Your task to perform on an android device: toggle priority inbox in the gmail app Image 0: 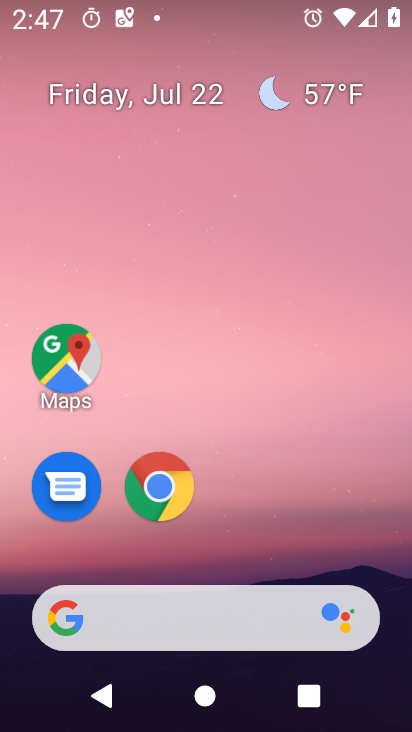
Step 0: press home button
Your task to perform on an android device: toggle priority inbox in the gmail app Image 1: 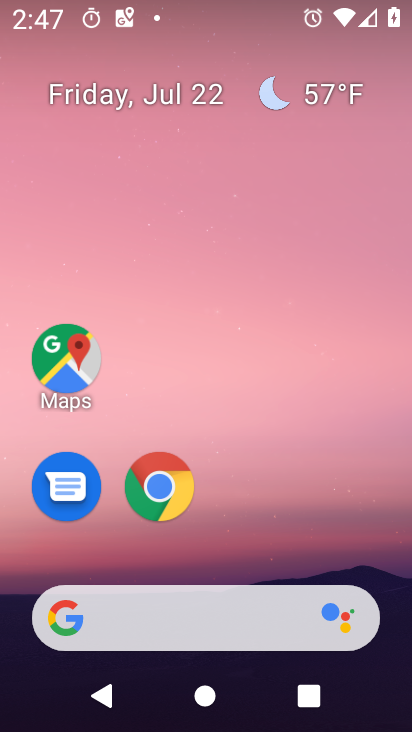
Step 1: drag from (362, 525) to (352, 143)
Your task to perform on an android device: toggle priority inbox in the gmail app Image 2: 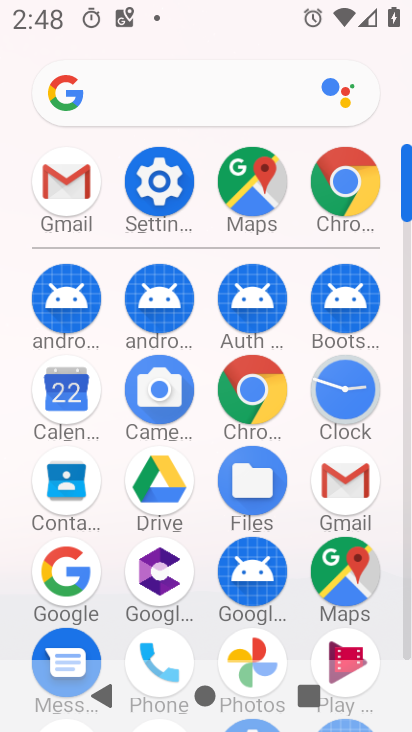
Step 2: click (339, 493)
Your task to perform on an android device: toggle priority inbox in the gmail app Image 3: 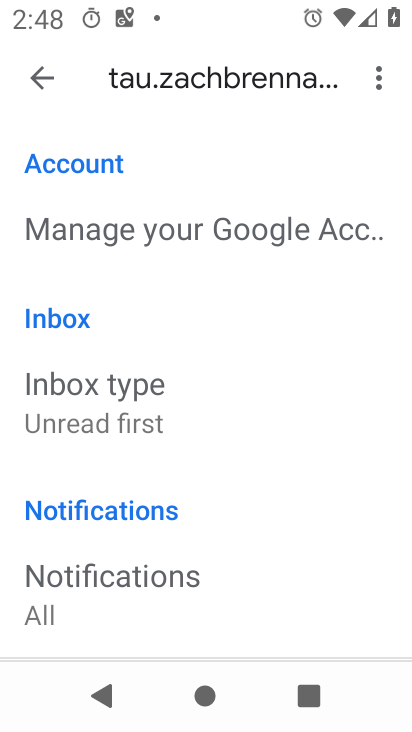
Step 3: drag from (344, 525) to (349, 445)
Your task to perform on an android device: toggle priority inbox in the gmail app Image 4: 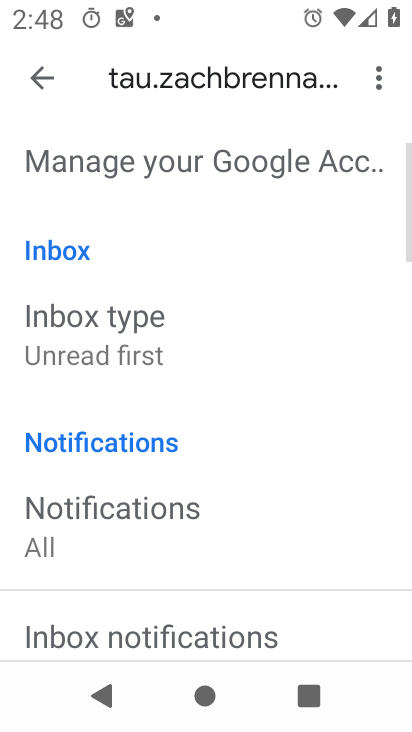
Step 4: drag from (349, 527) to (349, 442)
Your task to perform on an android device: toggle priority inbox in the gmail app Image 5: 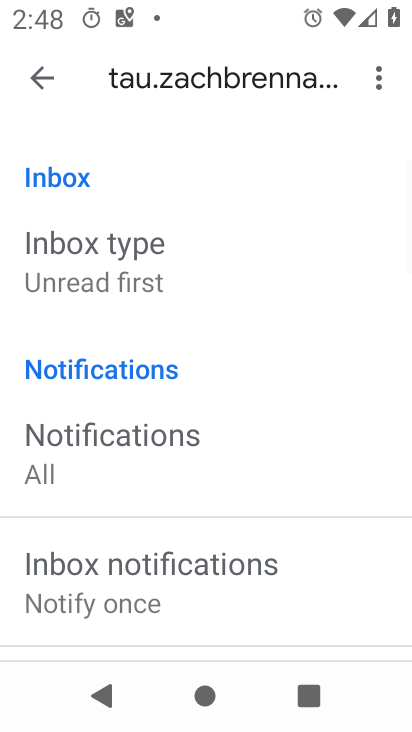
Step 5: drag from (342, 556) to (358, 441)
Your task to perform on an android device: toggle priority inbox in the gmail app Image 6: 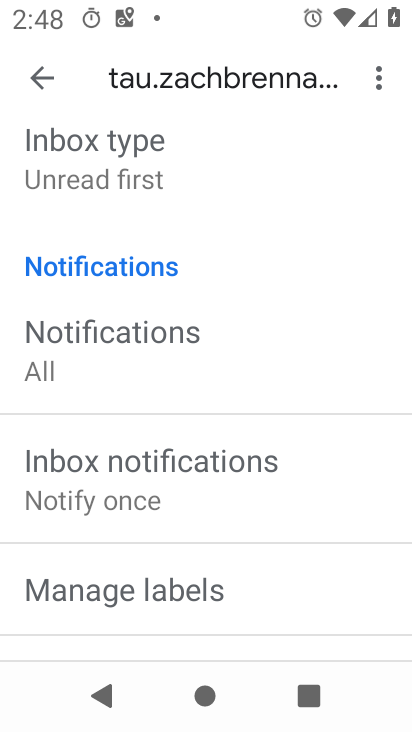
Step 6: drag from (339, 560) to (347, 454)
Your task to perform on an android device: toggle priority inbox in the gmail app Image 7: 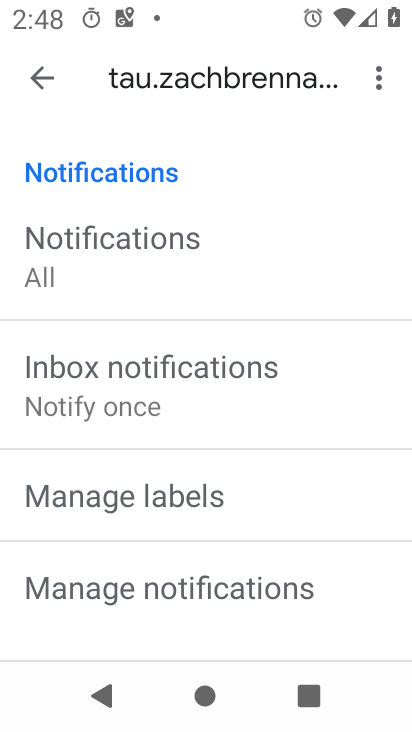
Step 7: drag from (350, 532) to (349, 407)
Your task to perform on an android device: toggle priority inbox in the gmail app Image 8: 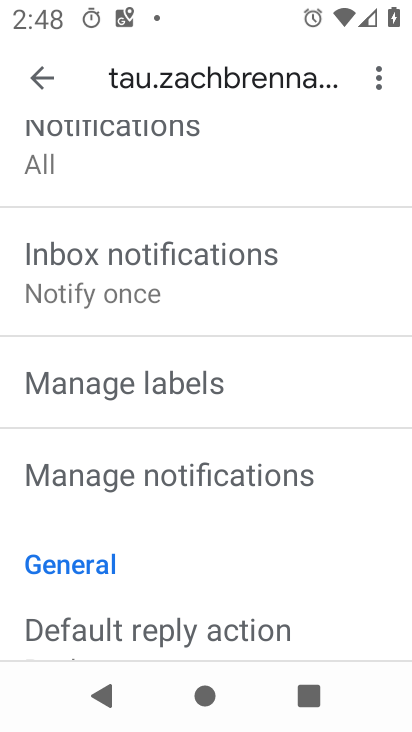
Step 8: drag from (351, 534) to (351, 445)
Your task to perform on an android device: toggle priority inbox in the gmail app Image 9: 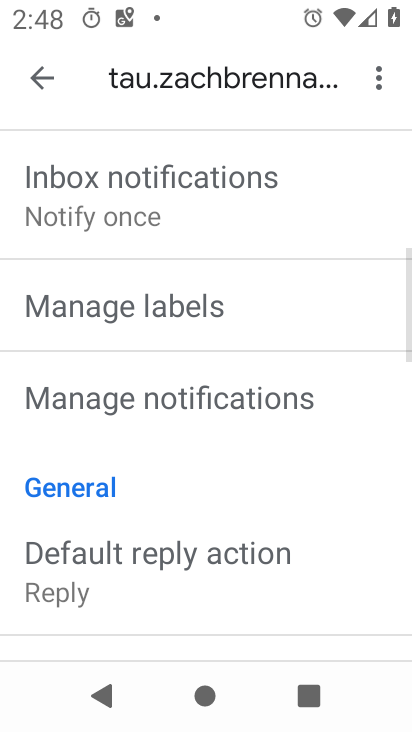
Step 9: drag from (354, 540) to (354, 444)
Your task to perform on an android device: toggle priority inbox in the gmail app Image 10: 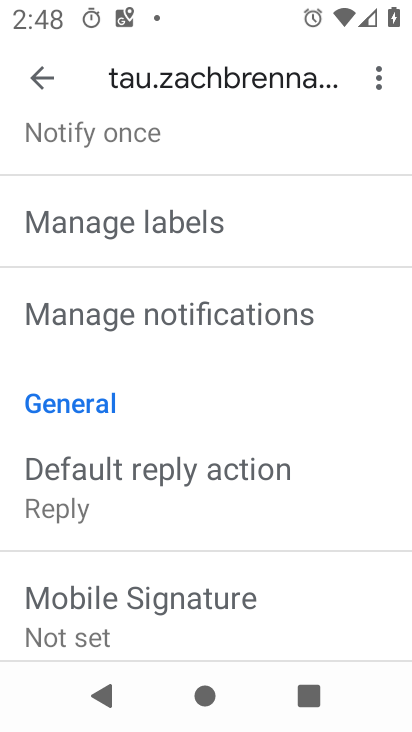
Step 10: drag from (354, 542) to (353, 434)
Your task to perform on an android device: toggle priority inbox in the gmail app Image 11: 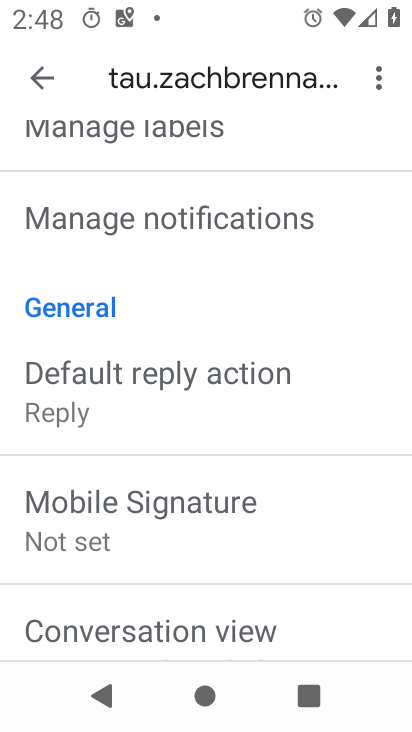
Step 11: drag from (347, 512) to (346, 438)
Your task to perform on an android device: toggle priority inbox in the gmail app Image 12: 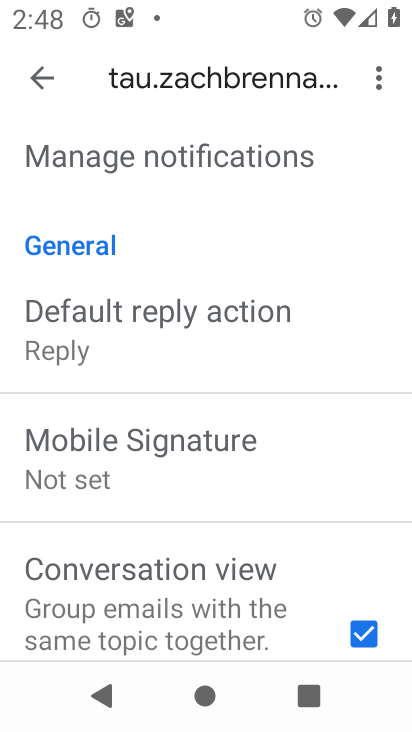
Step 12: drag from (325, 487) to (325, 401)
Your task to perform on an android device: toggle priority inbox in the gmail app Image 13: 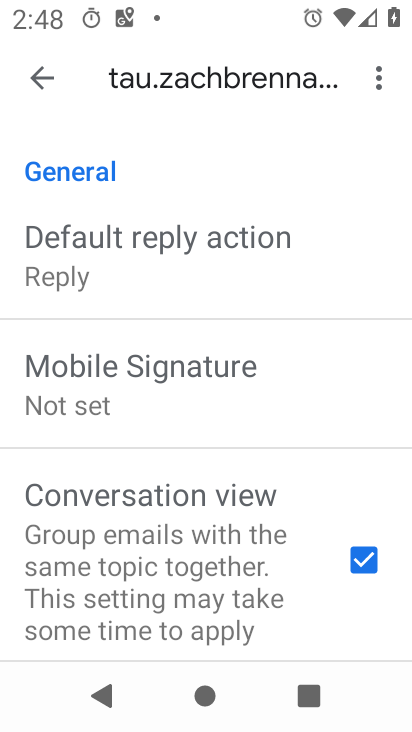
Step 13: drag from (298, 517) to (303, 421)
Your task to perform on an android device: toggle priority inbox in the gmail app Image 14: 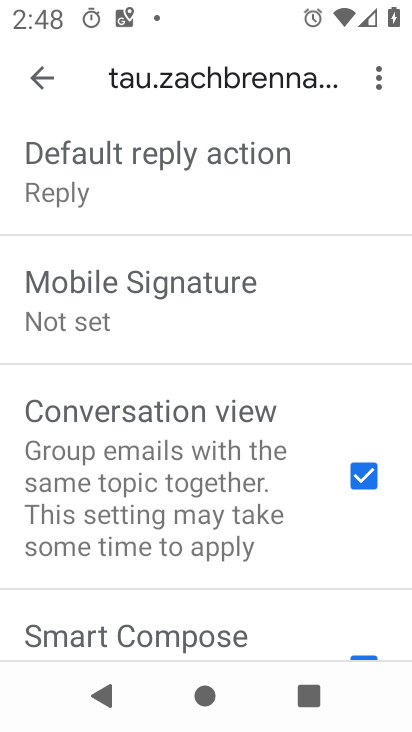
Step 14: drag from (325, 291) to (315, 391)
Your task to perform on an android device: toggle priority inbox in the gmail app Image 15: 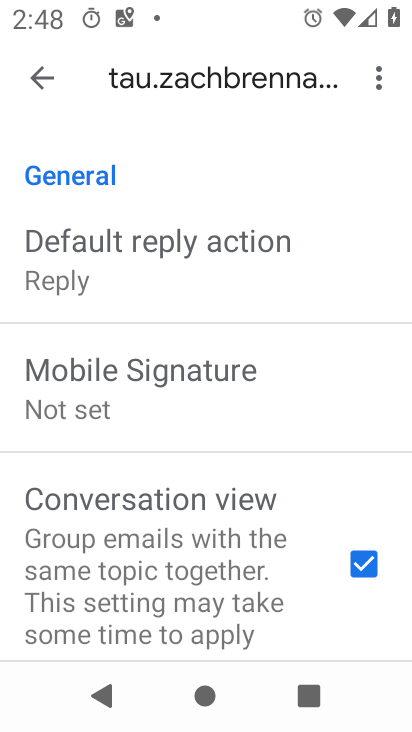
Step 15: drag from (310, 283) to (296, 384)
Your task to perform on an android device: toggle priority inbox in the gmail app Image 16: 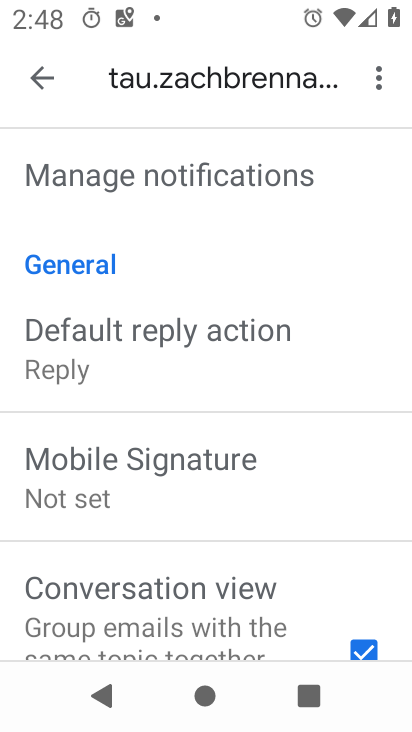
Step 16: drag from (304, 287) to (305, 364)
Your task to perform on an android device: toggle priority inbox in the gmail app Image 17: 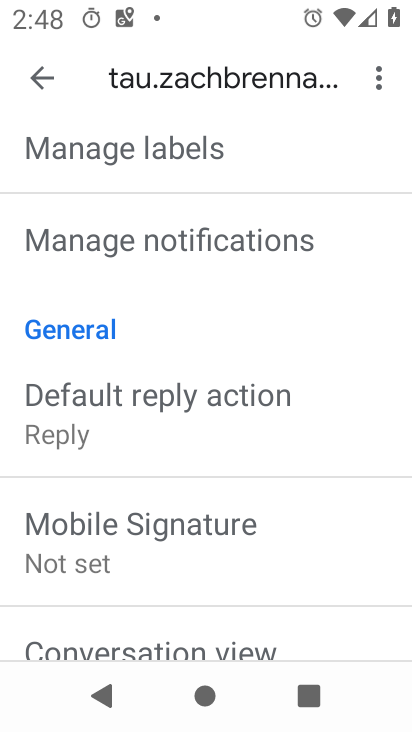
Step 17: drag from (301, 290) to (301, 372)
Your task to perform on an android device: toggle priority inbox in the gmail app Image 18: 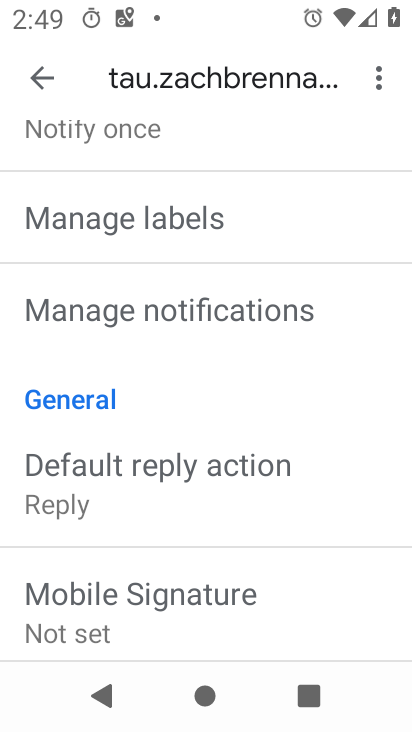
Step 18: drag from (293, 251) to (295, 354)
Your task to perform on an android device: toggle priority inbox in the gmail app Image 19: 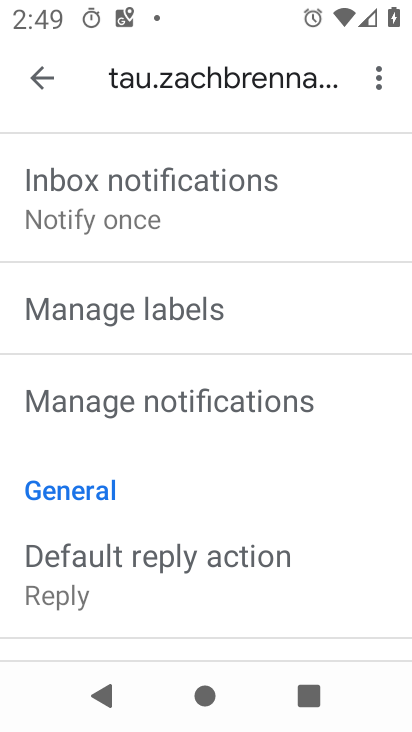
Step 19: drag from (295, 284) to (293, 383)
Your task to perform on an android device: toggle priority inbox in the gmail app Image 20: 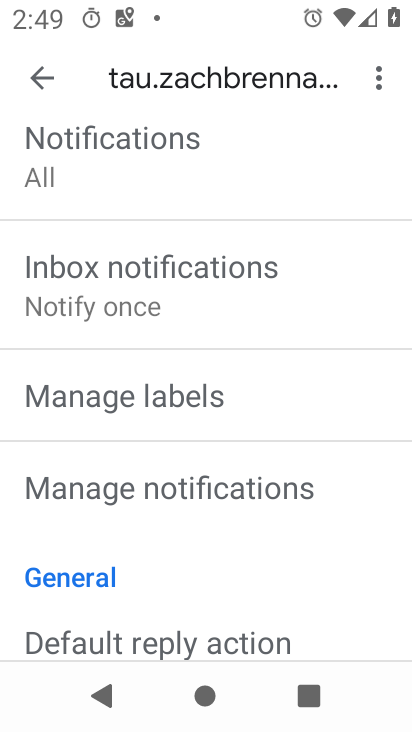
Step 20: drag from (293, 244) to (290, 355)
Your task to perform on an android device: toggle priority inbox in the gmail app Image 21: 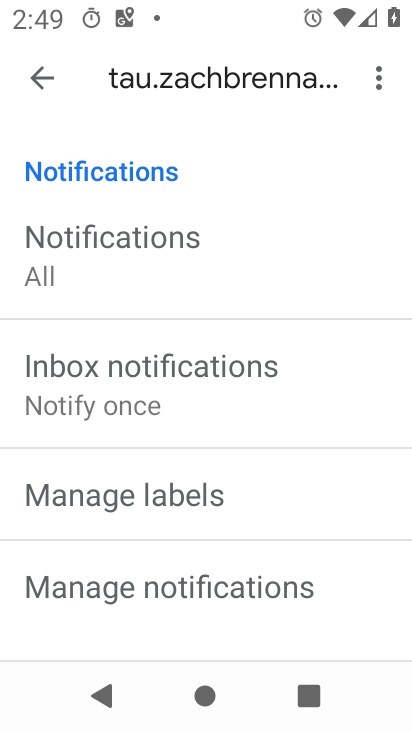
Step 21: drag from (267, 248) to (268, 364)
Your task to perform on an android device: toggle priority inbox in the gmail app Image 22: 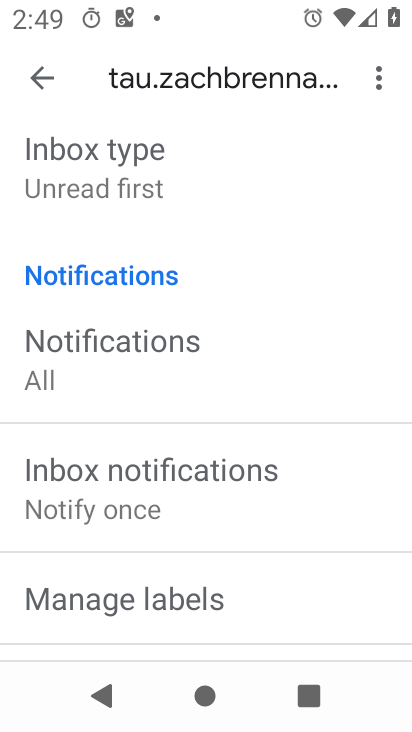
Step 22: drag from (249, 230) to (249, 351)
Your task to perform on an android device: toggle priority inbox in the gmail app Image 23: 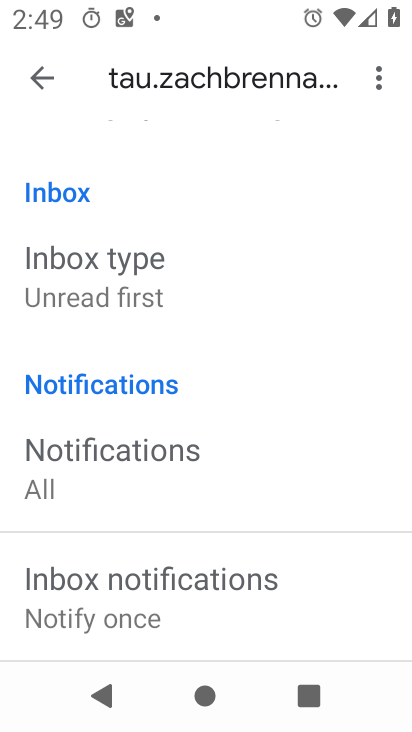
Step 23: click (152, 295)
Your task to perform on an android device: toggle priority inbox in the gmail app Image 24: 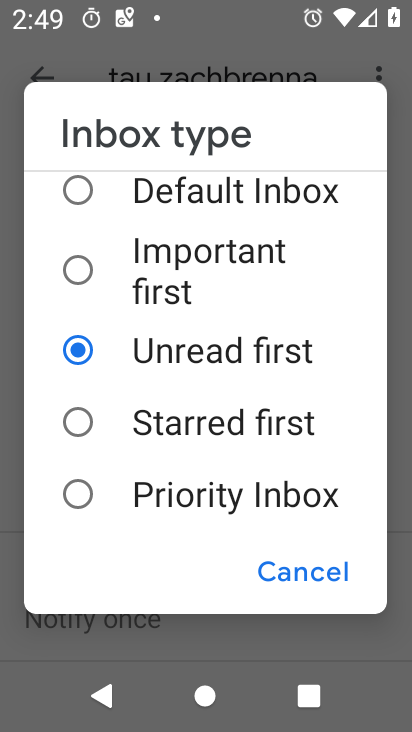
Step 24: click (191, 503)
Your task to perform on an android device: toggle priority inbox in the gmail app Image 25: 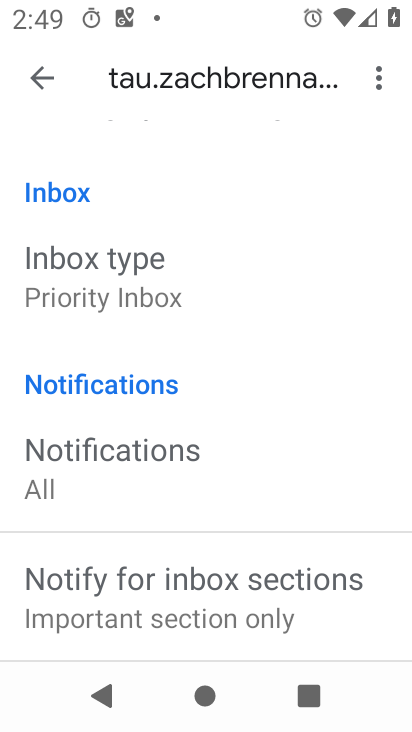
Step 25: task complete